Your task to perform on an android device: What's the weather today? Image 0: 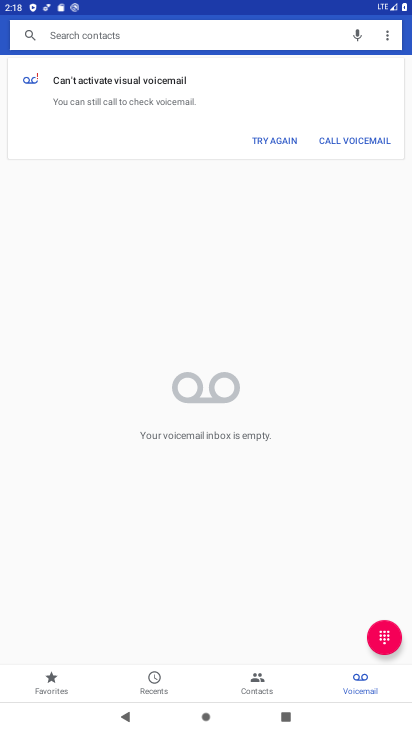
Step 0: press home button
Your task to perform on an android device: What's the weather today? Image 1: 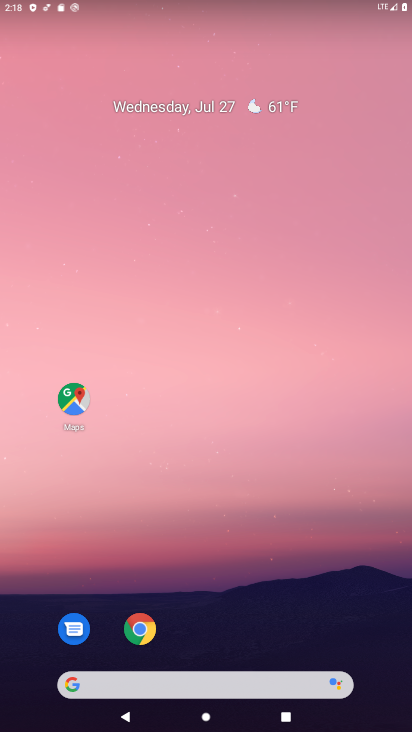
Step 1: drag from (191, 684) to (191, 103)
Your task to perform on an android device: What's the weather today? Image 2: 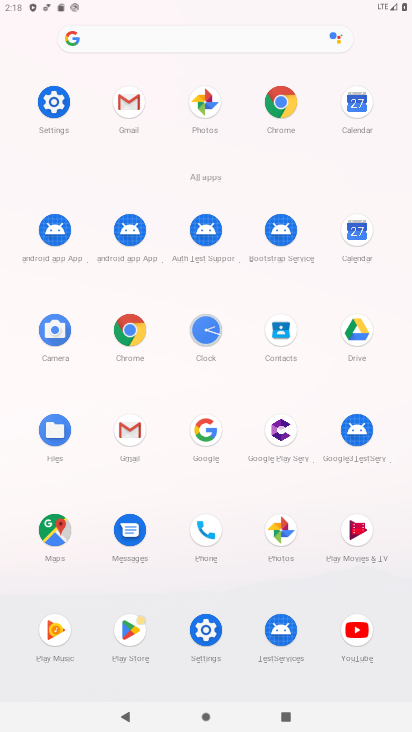
Step 2: click (205, 431)
Your task to perform on an android device: What's the weather today? Image 3: 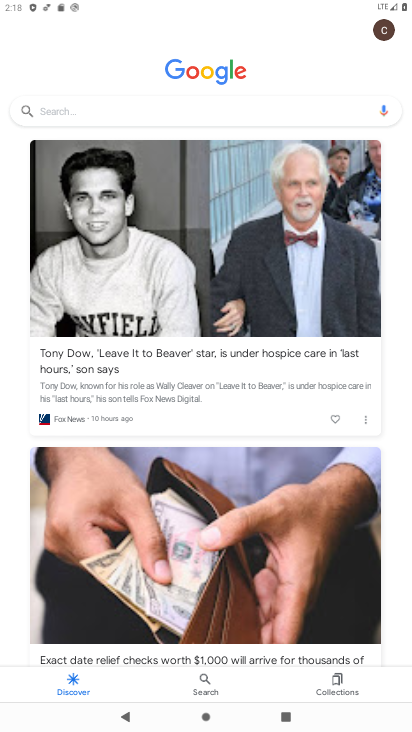
Step 3: click (196, 115)
Your task to perform on an android device: What's the weather today? Image 4: 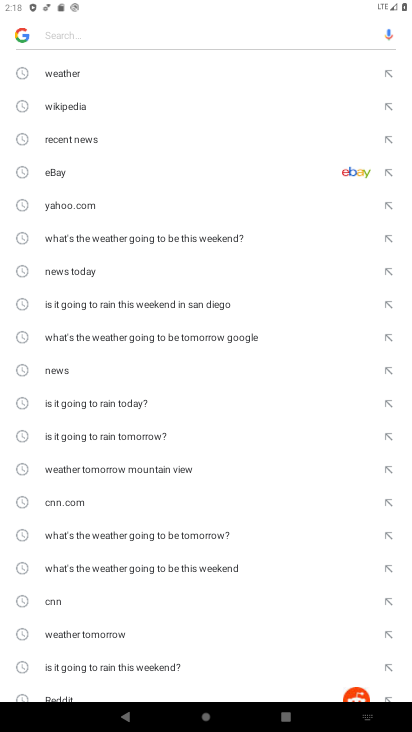
Step 4: click (78, 73)
Your task to perform on an android device: What's the weather today? Image 5: 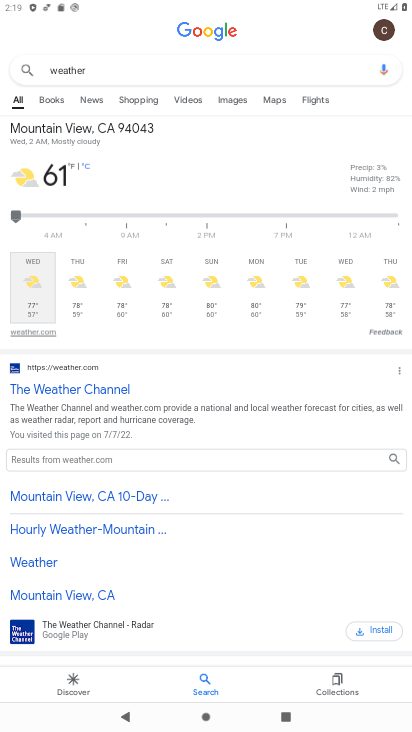
Step 5: task complete